Your task to perform on an android device: Open Wikipedia Image 0: 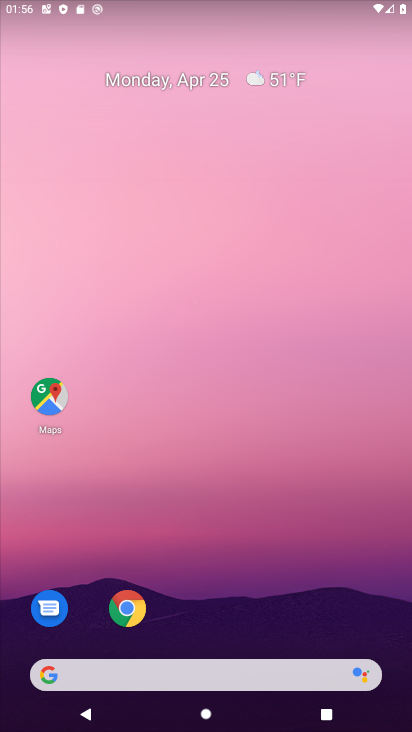
Step 0: click (125, 617)
Your task to perform on an android device: Open Wikipedia Image 1: 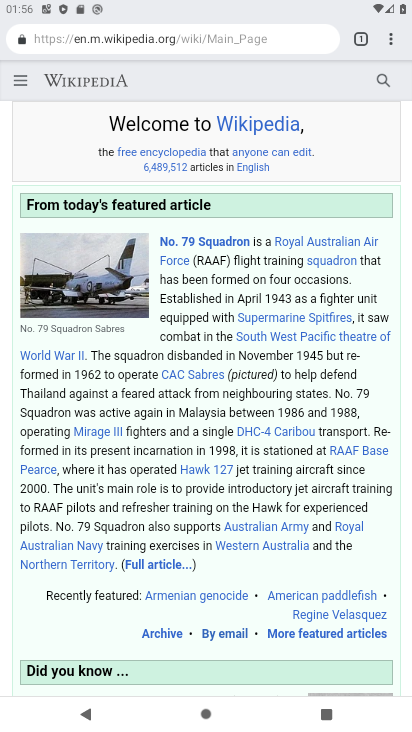
Step 1: task complete